Your task to perform on an android device: What's the weather going to be tomorrow? Image 0: 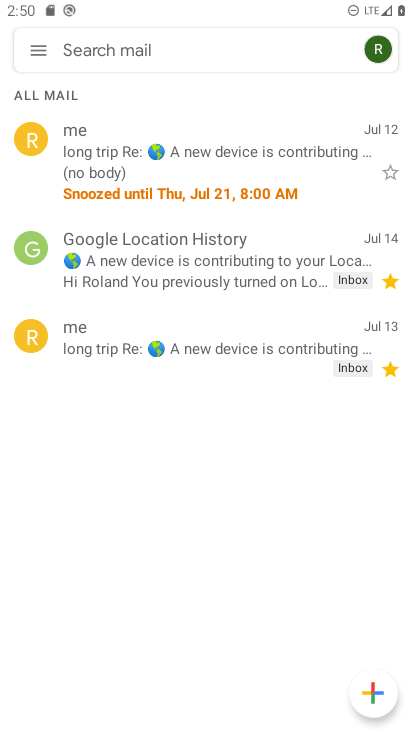
Step 0: press home button
Your task to perform on an android device: What's the weather going to be tomorrow? Image 1: 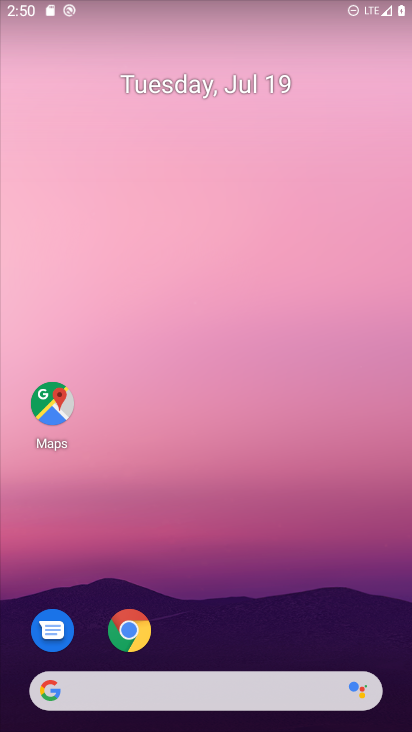
Step 1: drag from (12, 271) to (392, 297)
Your task to perform on an android device: What's the weather going to be tomorrow? Image 2: 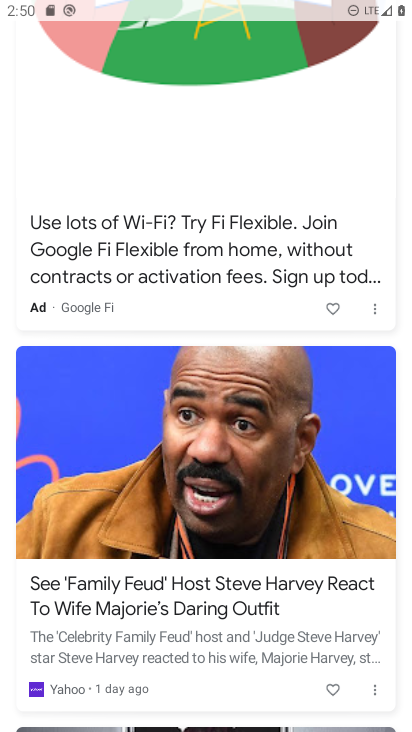
Step 2: drag from (229, 107) to (220, 418)
Your task to perform on an android device: What's the weather going to be tomorrow? Image 3: 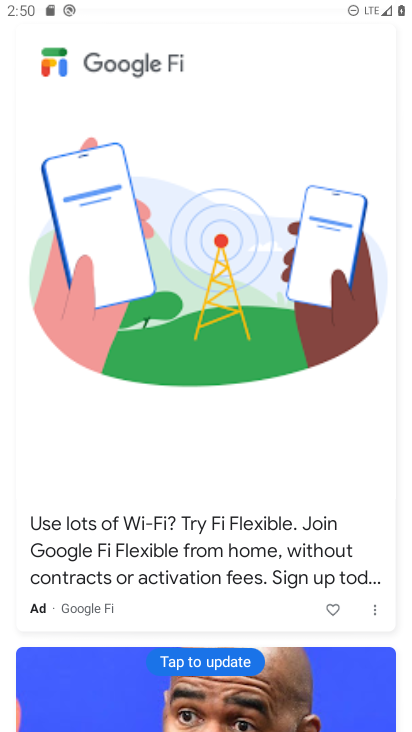
Step 3: drag from (259, 76) to (230, 432)
Your task to perform on an android device: What's the weather going to be tomorrow? Image 4: 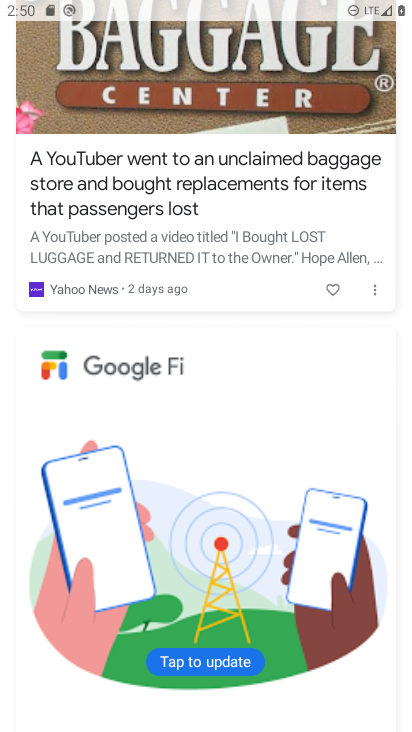
Step 4: drag from (249, 47) to (246, 495)
Your task to perform on an android device: What's the weather going to be tomorrow? Image 5: 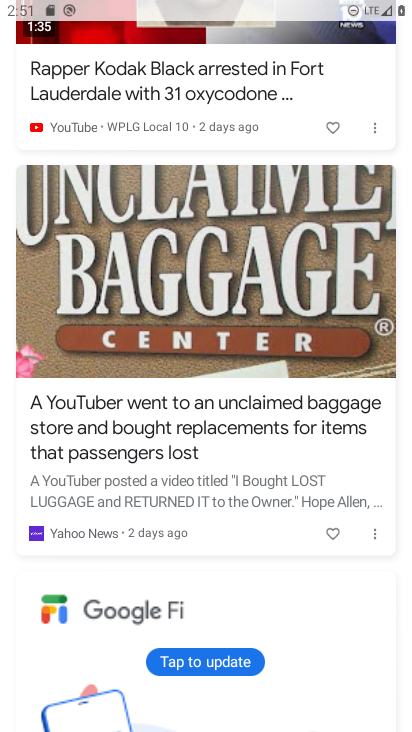
Step 5: drag from (250, 133) to (241, 500)
Your task to perform on an android device: What's the weather going to be tomorrow? Image 6: 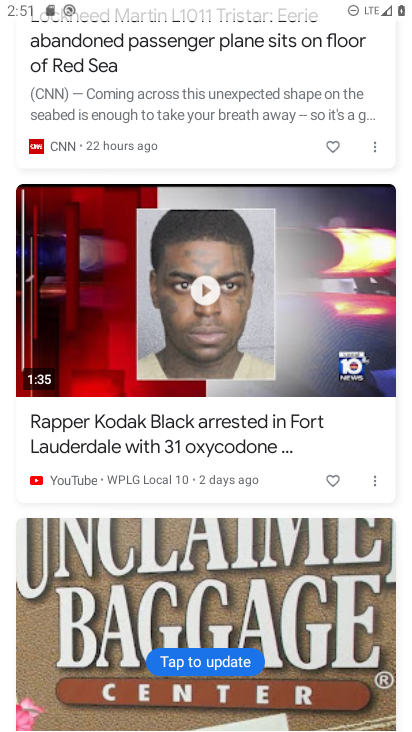
Step 6: drag from (270, 73) to (281, 510)
Your task to perform on an android device: What's the weather going to be tomorrow? Image 7: 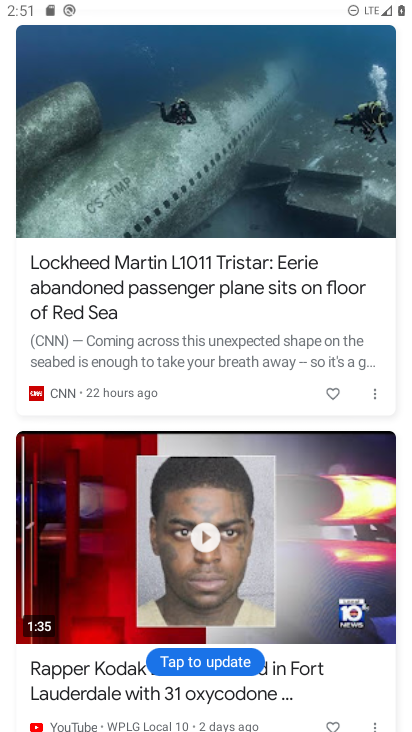
Step 7: drag from (216, 103) to (245, 441)
Your task to perform on an android device: What's the weather going to be tomorrow? Image 8: 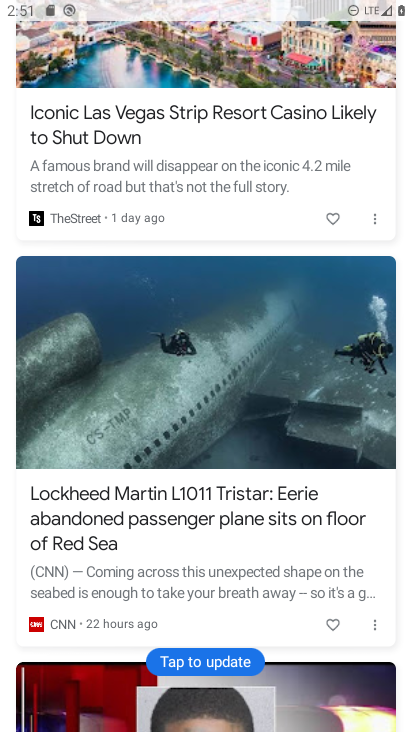
Step 8: click (201, 657)
Your task to perform on an android device: What's the weather going to be tomorrow? Image 9: 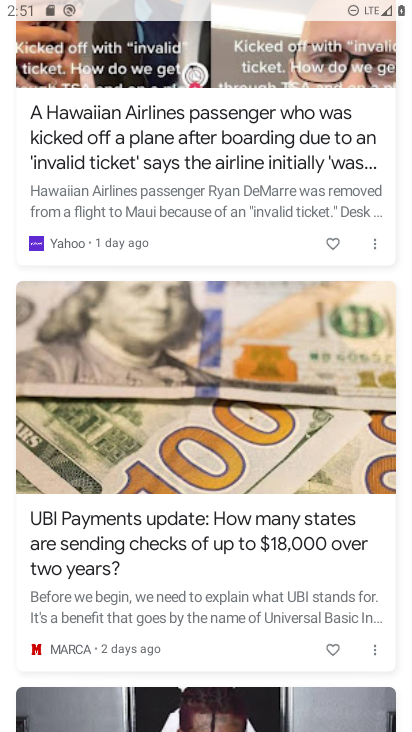
Step 9: drag from (224, 203) to (245, 557)
Your task to perform on an android device: What's the weather going to be tomorrow? Image 10: 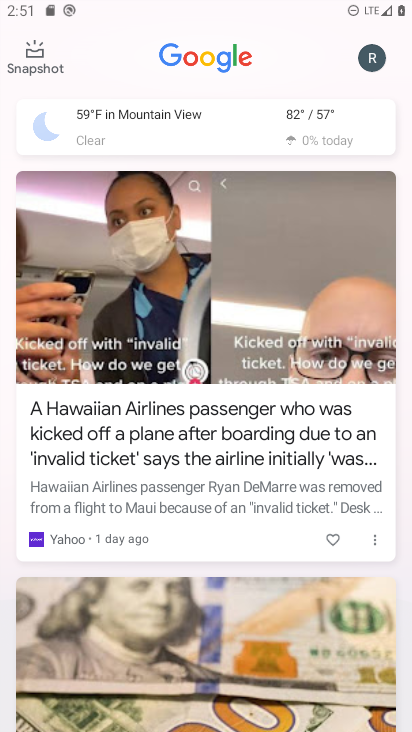
Step 10: click (284, 118)
Your task to perform on an android device: What's the weather going to be tomorrow? Image 11: 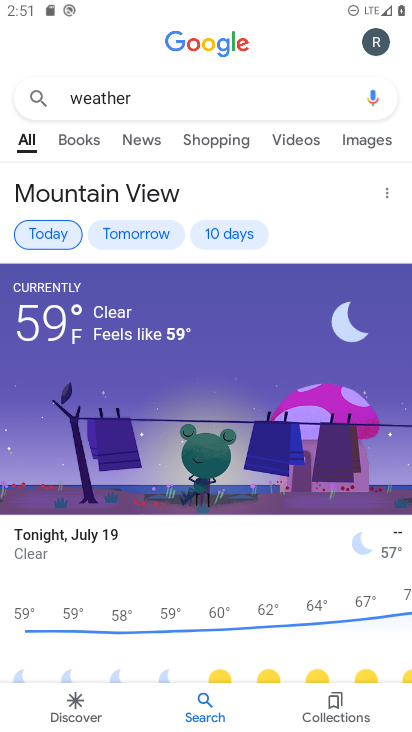
Step 11: click (125, 226)
Your task to perform on an android device: What's the weather going to be tomorrow? Image 12: 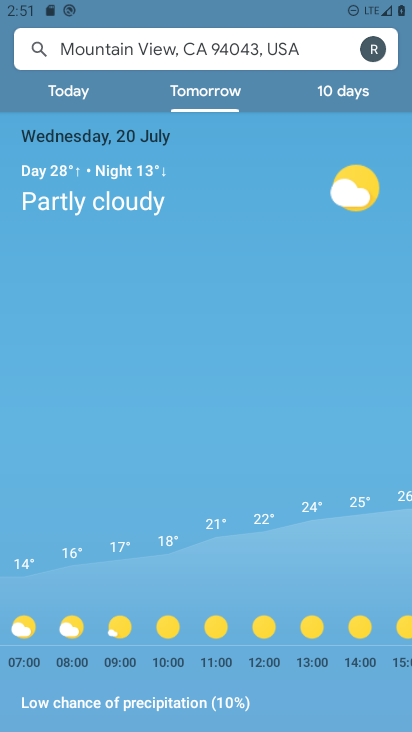
Step 12: task complete